Your task to perform on an android device: show emergency info Image 0: 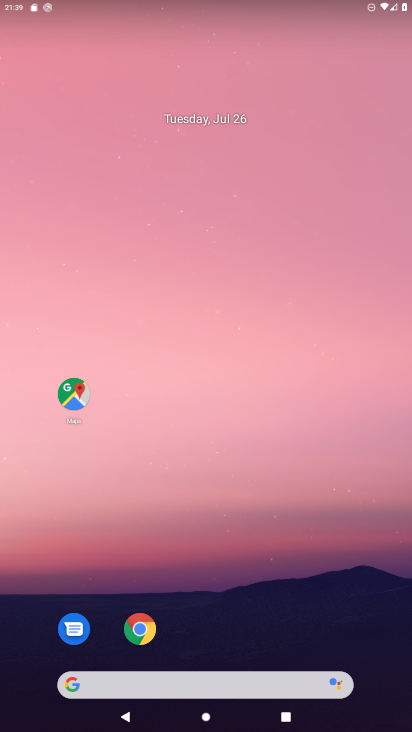
Step 0: drag from (266, 615) to (174, 24)
Your task to perform on an android device: show emergency info Image 1: 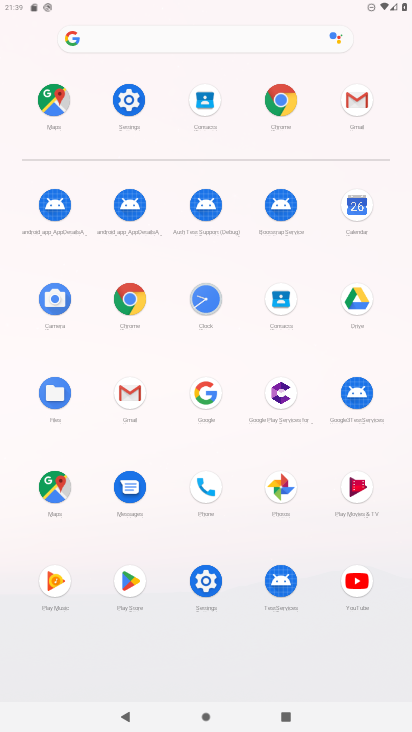
Step 1: click (211, 568)
Your task to perform on an android device: show emergency info Image 2: 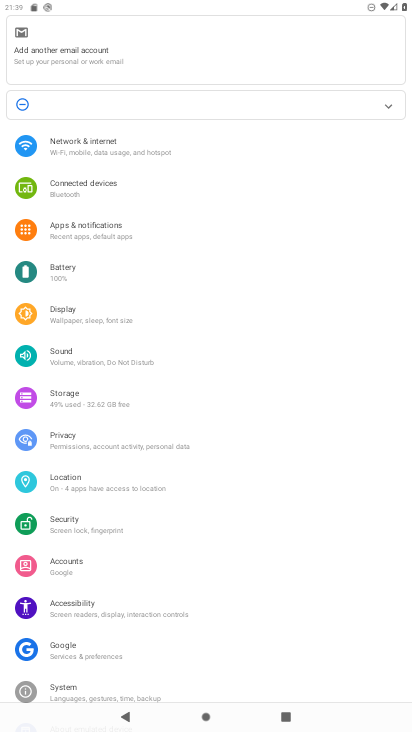
Step 2: drag from (214, 652) to (97, 13)
Your task to perform on an android device: show emergency info Image 3: 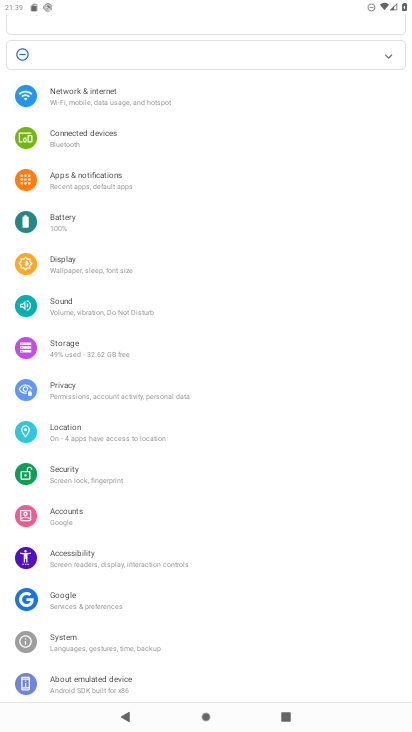
Step 3: click (81, 681)
Your task to perform on an android device: show emergency info Image 4: 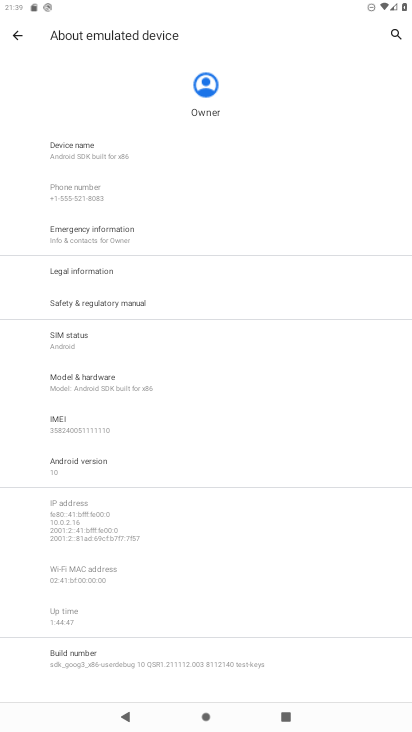
Step 4: drag from (159, 630) to (144, 81)
Your task to perform on an android device: show emergency info Image 5: 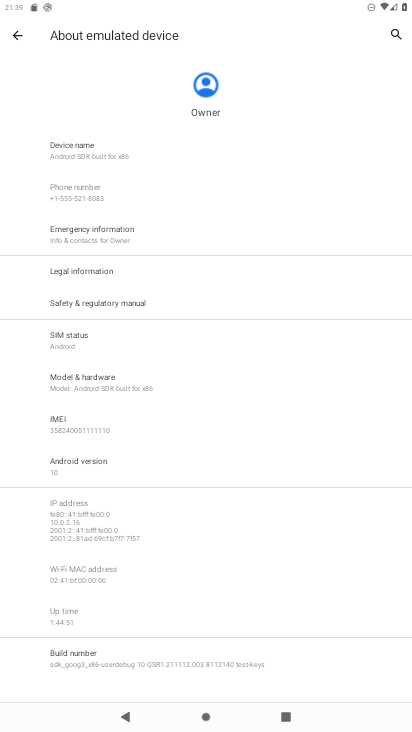
Step 5: click (124, 232)
Your task to perform on an android device: show emergency info Image 6: 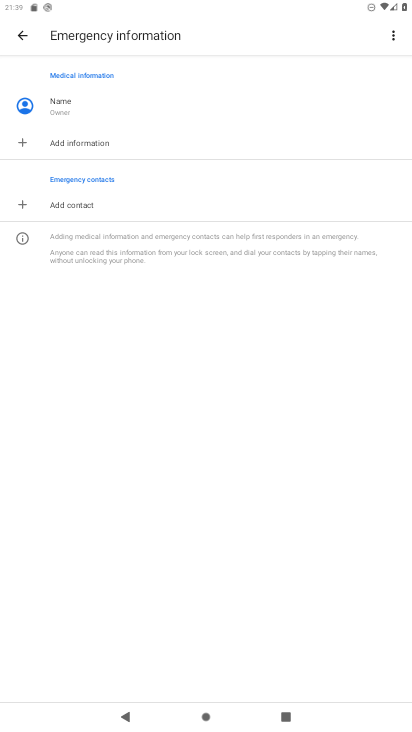
Step 6: task complete